Your task to perform on an android device: find photos in the google photos app Image 0: 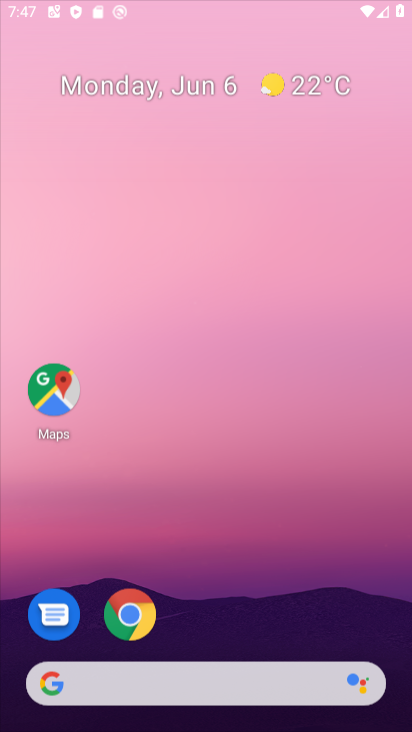
Step 0: click (51, 374)
Your task to perform on an android device: find photos in the google photos app Image 1: 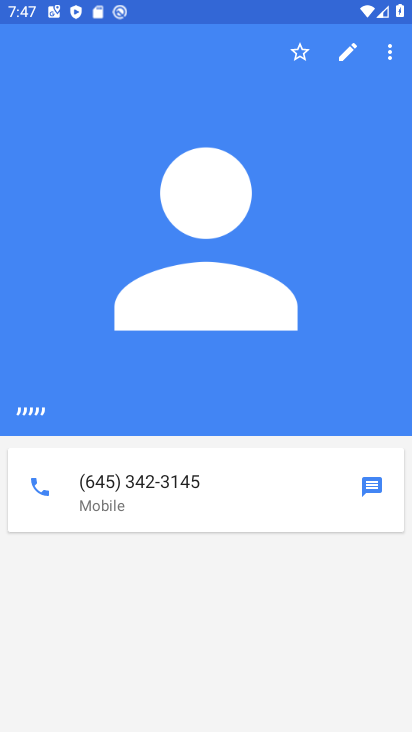
Step 1: press home button
Your task to perform on an android device: find photos in the google photos app Image 2: 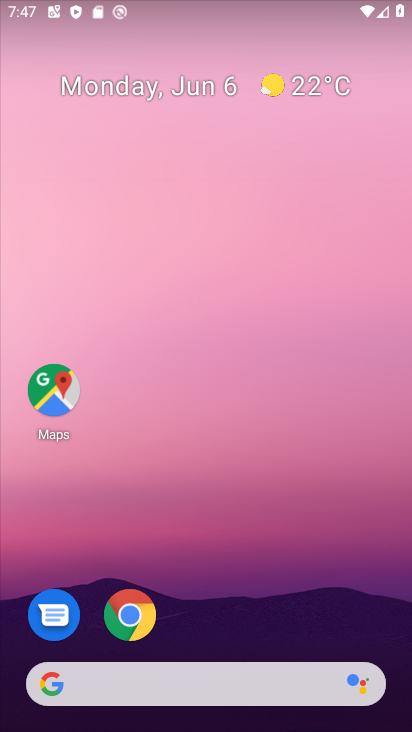
Step 2: drag from (382, 560) to (370, 11)
Your task to perform on an android device: find photos in the google photos app Image 3: 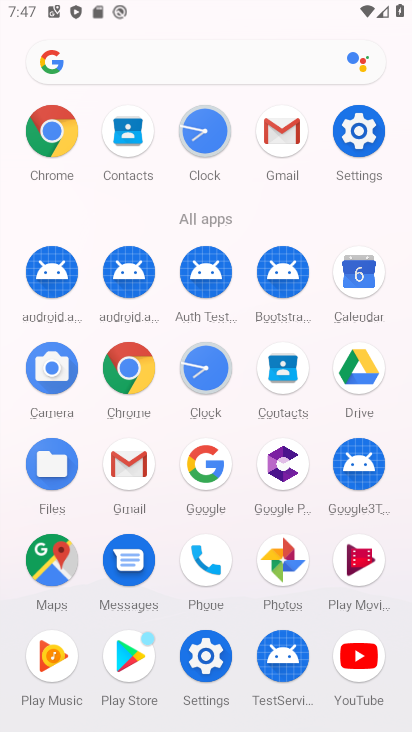
Step 3: click (283, 557)
Your task to perform on an android device: find photos in the google photos app Image 4: 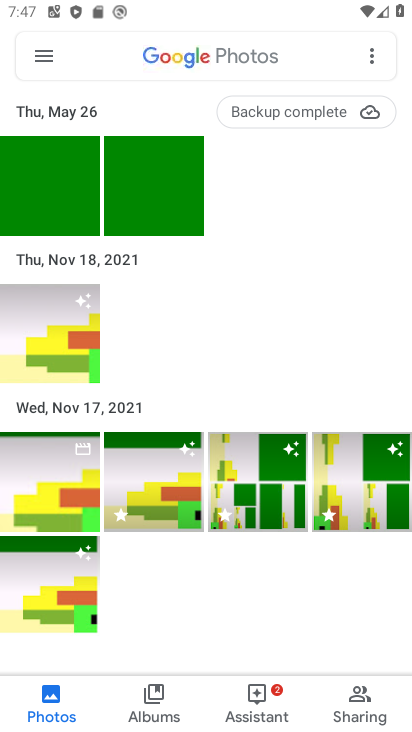
Step 4: click (142, 477)
Your task to perform on an android device: find photos in the google photos app Image 5: 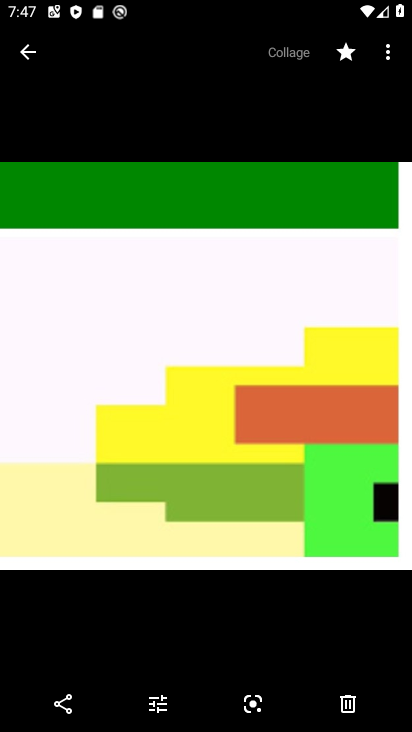
Step 5: click (33, 47)
Your task to perform on an android device: find photos in the google photos app Image 6: 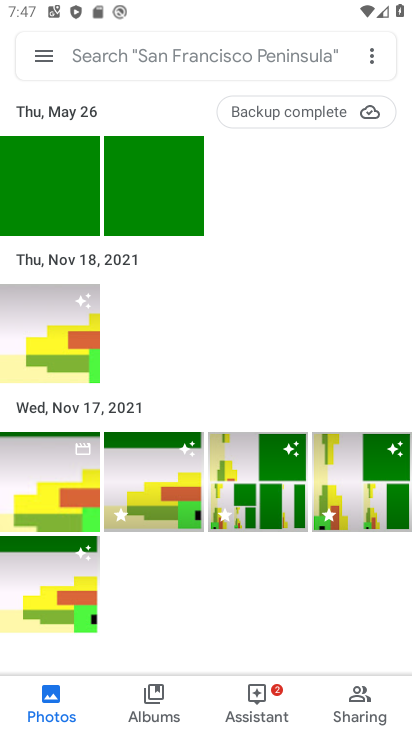
Step 6: click (358, 466)
Your task to perform on an android device: find photos in the google photos app Image 7: 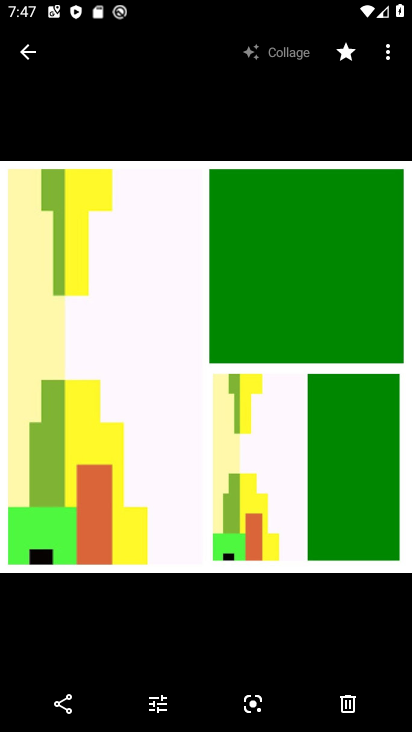
Step 7: click (404, 217)
Your task to perform on an android device: find photos in the google photos app Image 8: 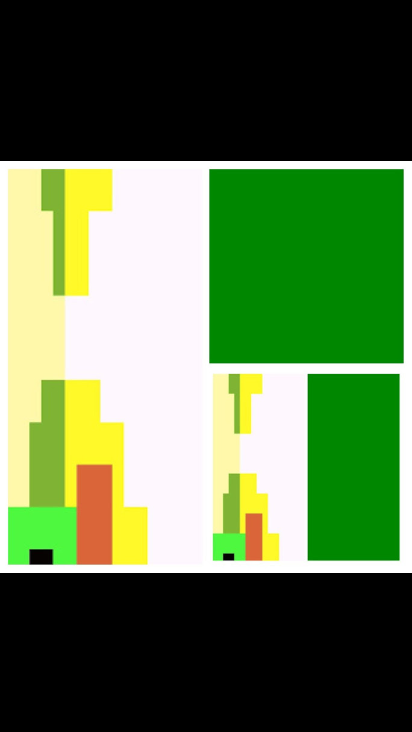
Step 8: click (397, 173)
Your task to perform on an android device: find photos in the google photos app Image 9: 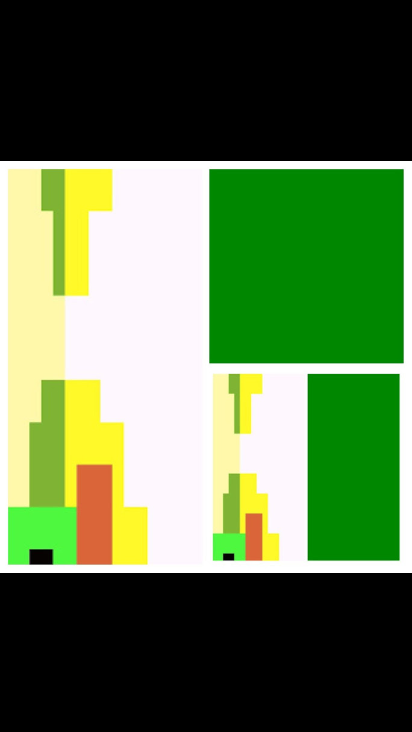
Step 9: click (52, 88)
Your task to perform on an android device: find photos in the google photos app Image 10: 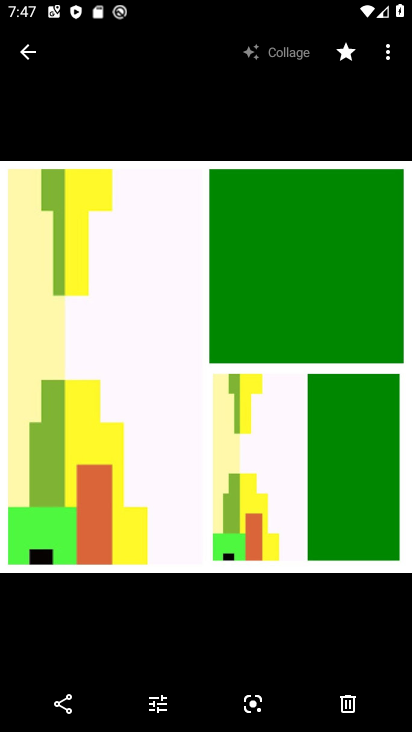
Step 10: click (24, 64)
Your task to perform on an android device: find photos in the google photos app Image 11: 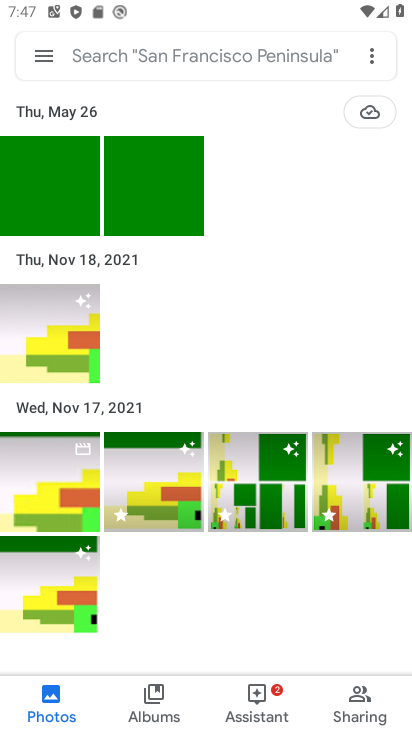
Step 11: click (54, 593)
Your task to perform on an android device: find photos in the google photos app Image 12: 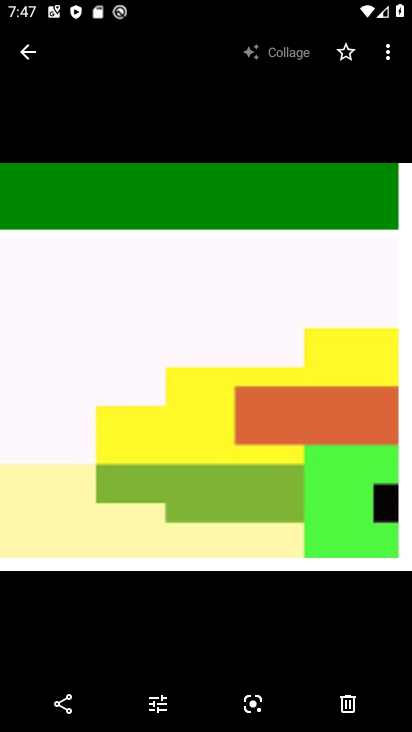
Step 12: click (30, 52)
Your task to perform on an android device: find photos in the google photos app Image 13: 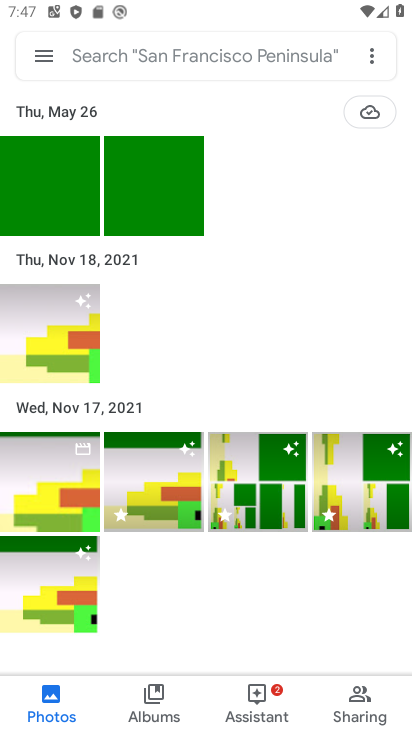
Step 13: task complete